Your task to perform on an android device: Go to Android settings Image 0: 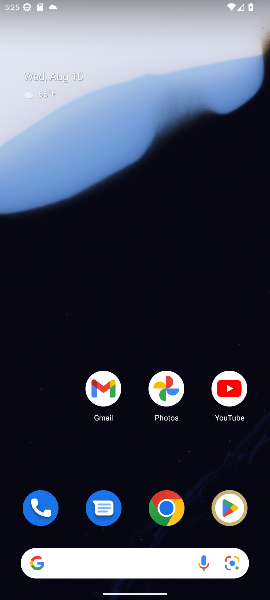
Step 0: press home button
Your task to perform on an android device: Go to Android settings Image 1: 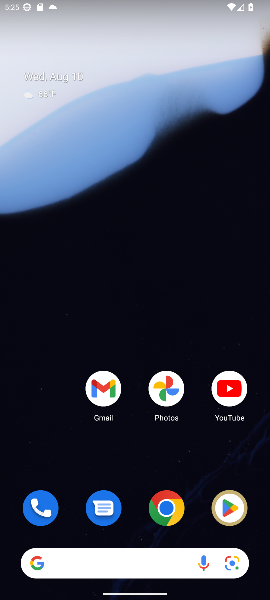
Step 1: drag from (60, 457) to (122, 0)
Your task to perform on an android device: Go to Android settings Image 2: 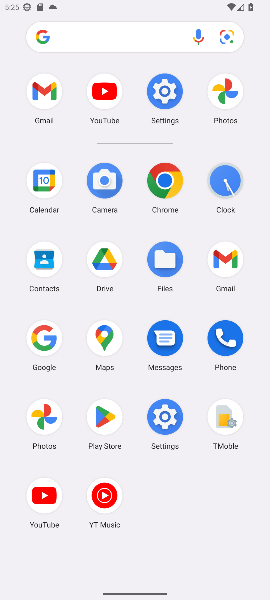
Step 2: click (158, 408)
Your task to perform on an android device: Go to Android settings Image 3: 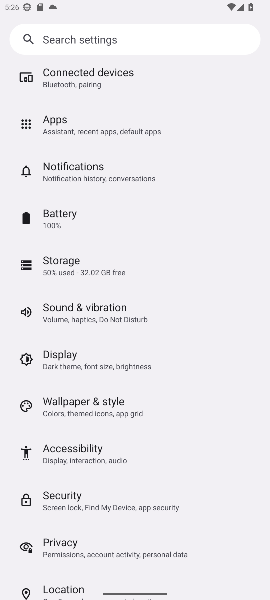
Step 3: task complete